Your task to perform on an android device: Open battery settings Image 0: 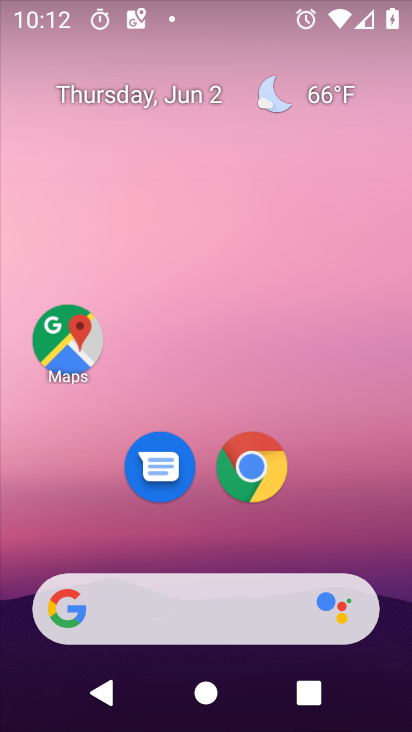
Step 0: press home button
Your task to perform on an android device: Open battery settings Image 1: 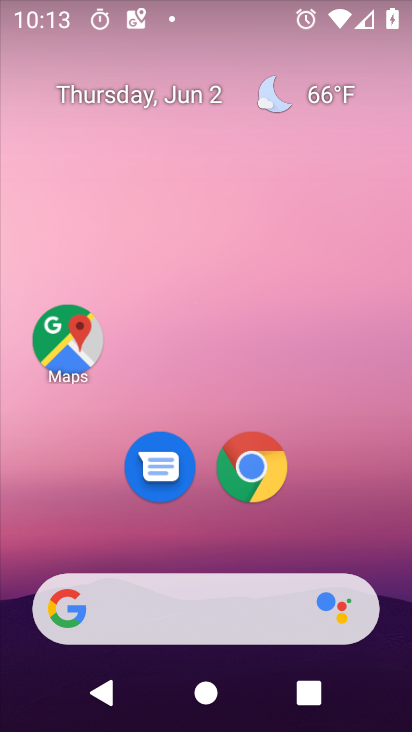
Step 1: drag from (52, 618) to (282, 169)
Your task to perform on an android device: Open battery settings Image 2: 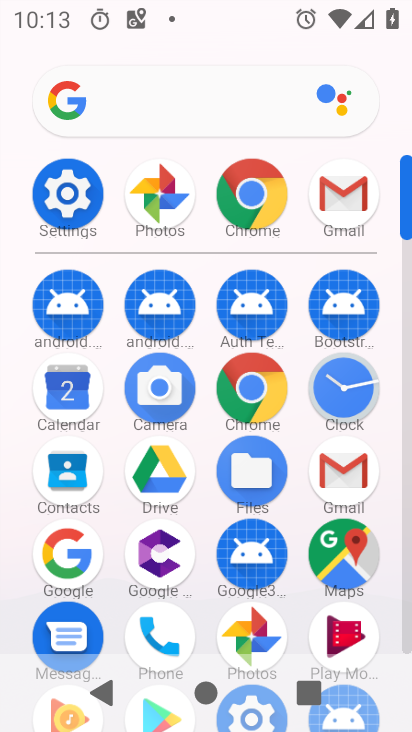
Step 2: click (68, 184)
Your task to perform on an android device: Open battery settings Image 3: 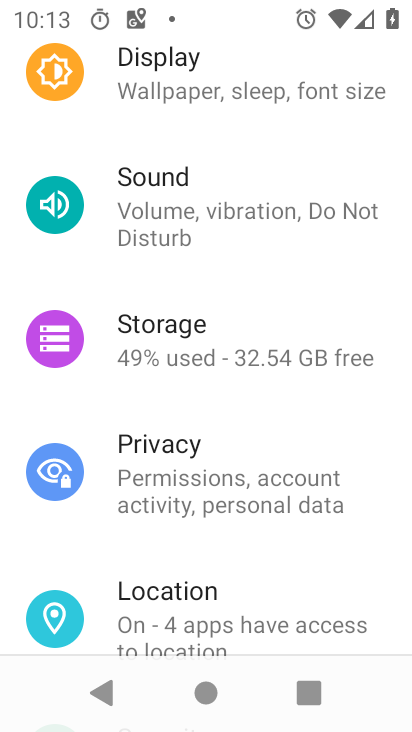
Step 3: drag from (173, 193) to (92, 628)
Your task to perform on an android device: Open battery settings Image 4: 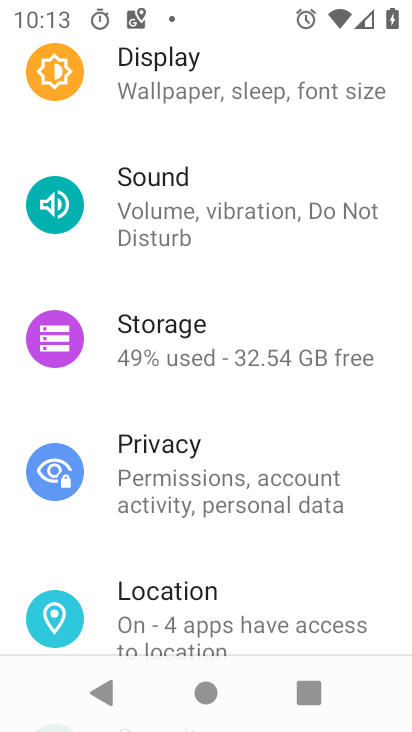
Step 4: drag from (74, 102) to (1, 682)
Your task to perform on an android device: Open battery settings Image 5: 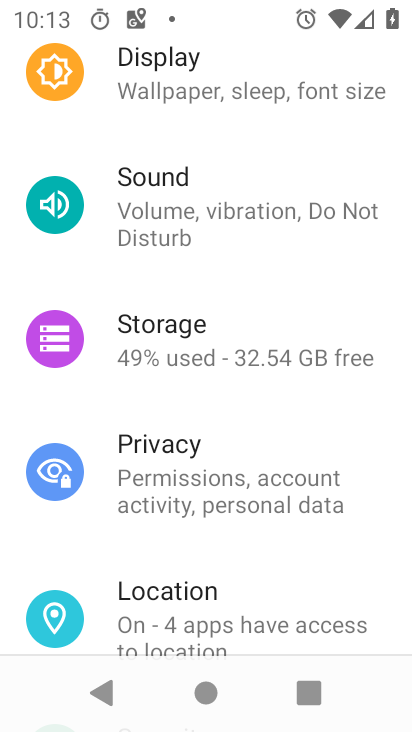
Step 5: drag from (316, 83) to (330, 696)
Your task to perform on an android device: Open battery settings Image 6: 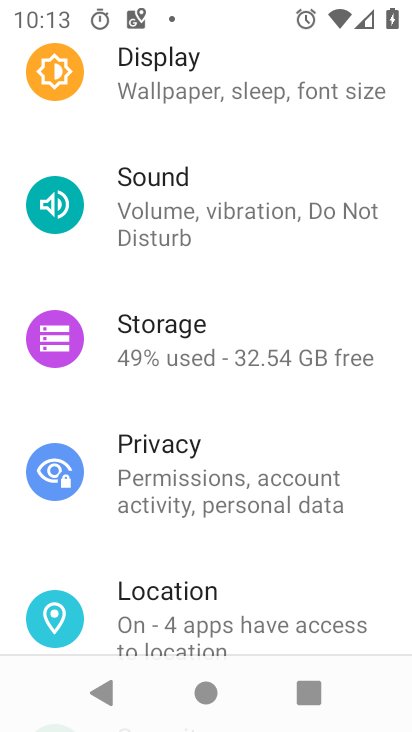
Step 6: drag from (307, 123) to (256, 666)
Your task to perform on an android device: Open battery settings Image 7: 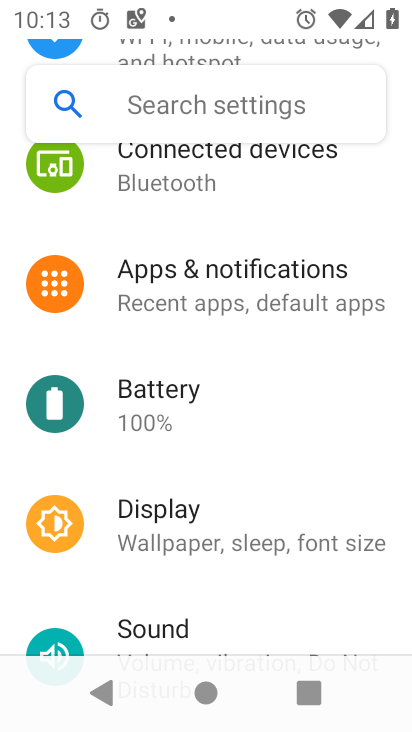
Step 7: click (155, 404)
Your task to perform on an android device: Open battery settings Image 8: 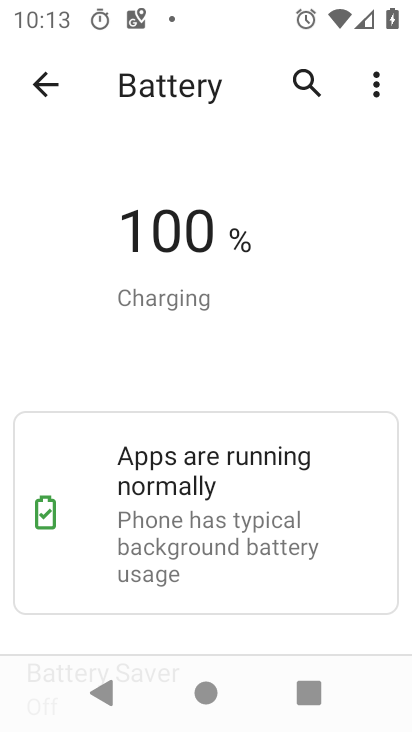
Step 8: task complete